Your task to perform on an android device: clear all cookies in the chrome app Image 0: 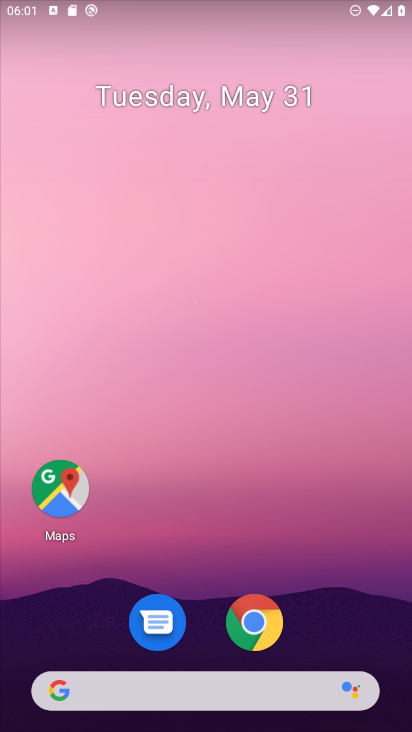
Step 0: drag from (344, 580) to (374, 58)
Your task to perform on an android device: clear all cookies in the chrome app Image 1: 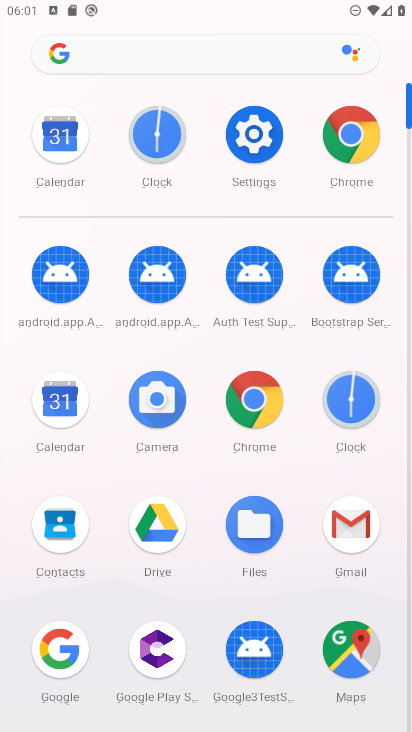
Step 1: click (251, 390)
Your task to perform on an android device: clear all cookies in the chrome app Image 2: 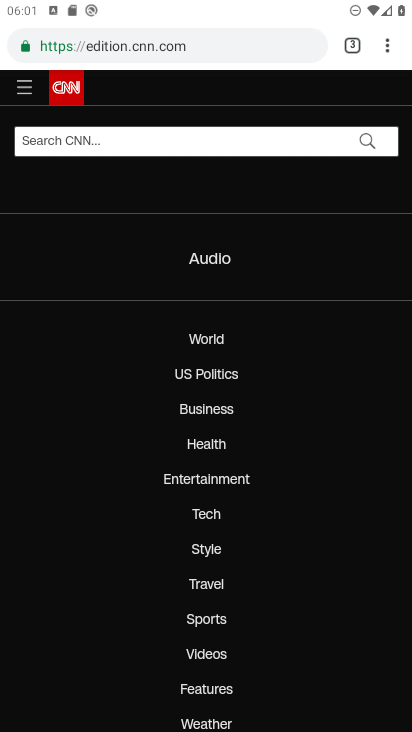
Step 2: drag from (387, 45) to (261, 263)
Your task to perform on an android device: clear all cookies in the chrome app Image 3: 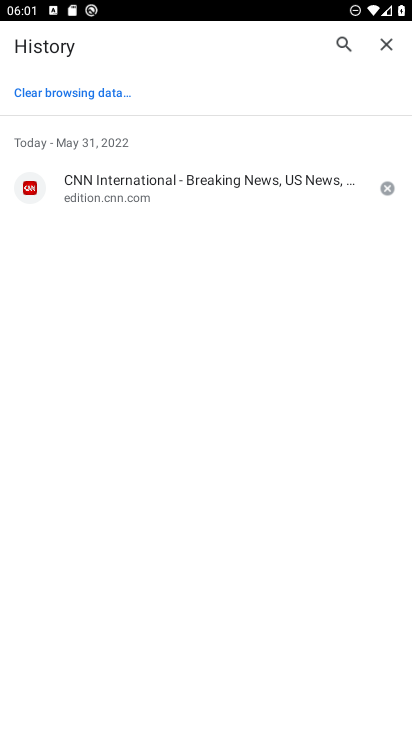
Step 3: click (392, 184)
Your task to perform on an android device: clear all cookies in the chrome app Image 4: 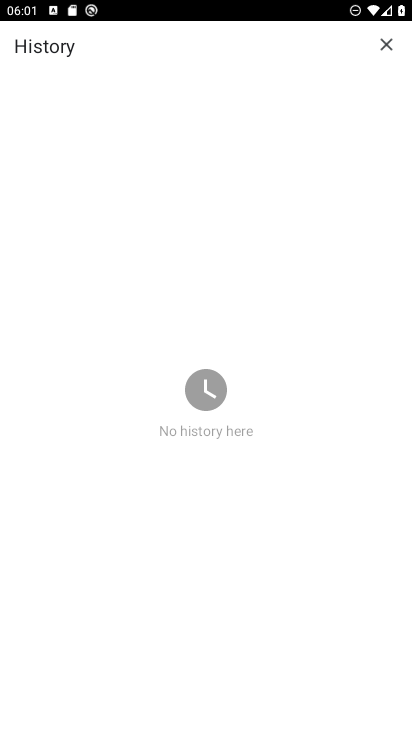
Step 4: task complete